Your task to perform on an android device: turn vacation reply on in the gmail app Image 0: 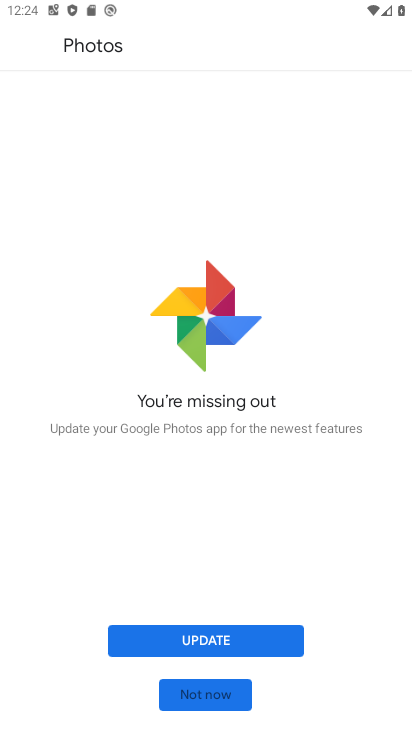
Step 0: press back button
Your task to perform on an android device: turn vacation reply on in the gmail app Image 1: 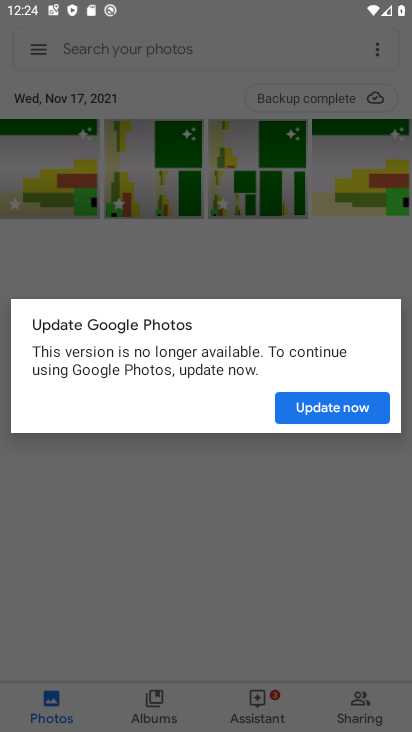
Step 1: press back button
Your task to perform on an android device: turn vacation reply on in the gmail app Image 2: 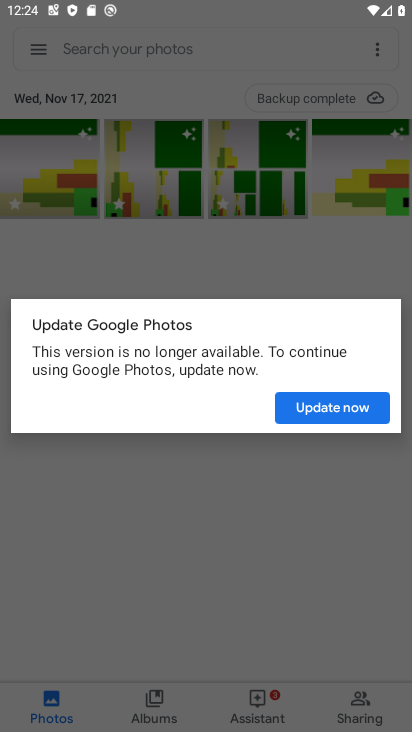
Step 2: press home button
Your task to perform on an android device: turn vacation reply on in the gmail app Image 3: 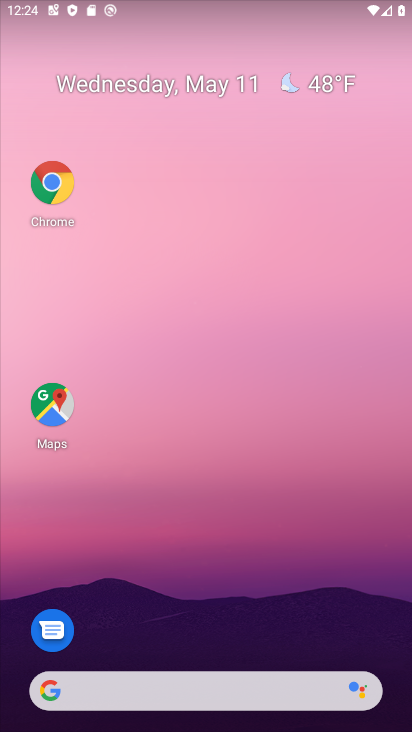
Step 3: drag from (217, 658) to (190, 0)
Your task to perform on an android device: turn vacation reply on in the gmail app Image 4: 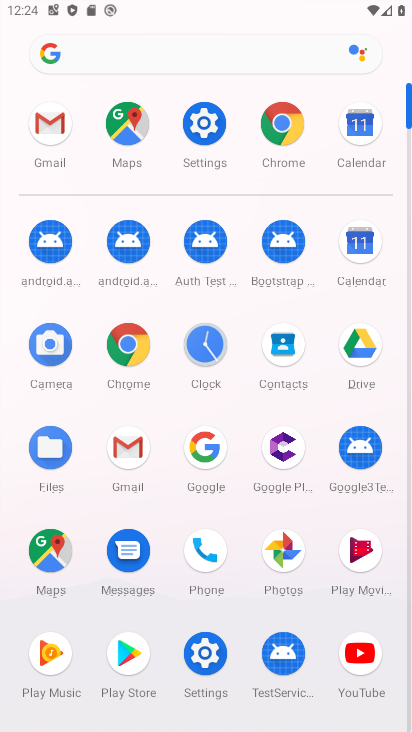
Step 4: click (130, 451)
Your task to perform on an android device: turn vacation reply on in the gmail app Image 5: 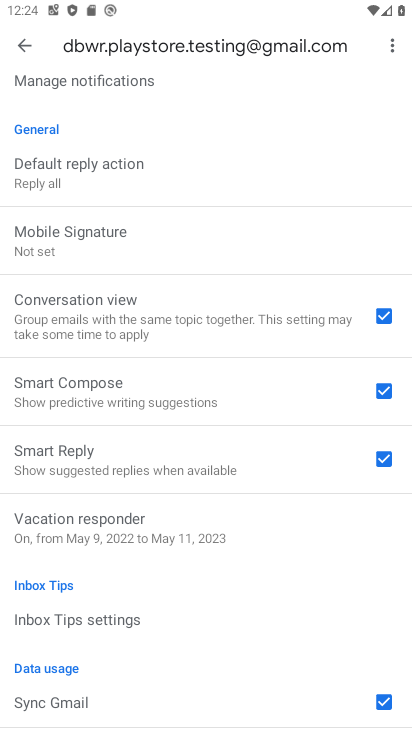
Step 5: click (160, 528)
Your task to perform on an android device: turn vacation reply on in the gmail app Image 6: 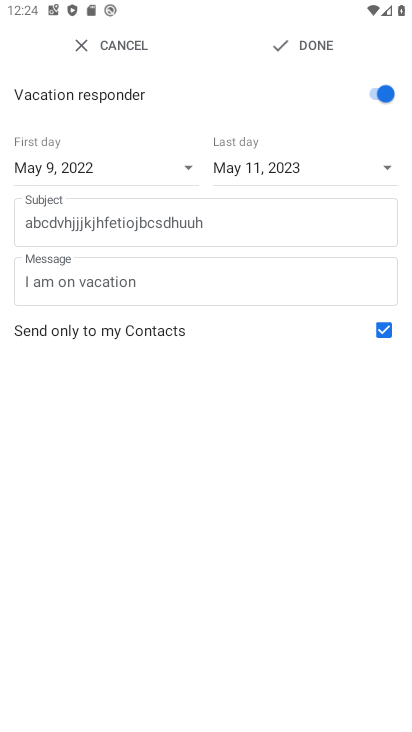
Step 6: click (294, 49)
Your task to perform on an android device: turn vacation reply on in the gmail app Image 7: 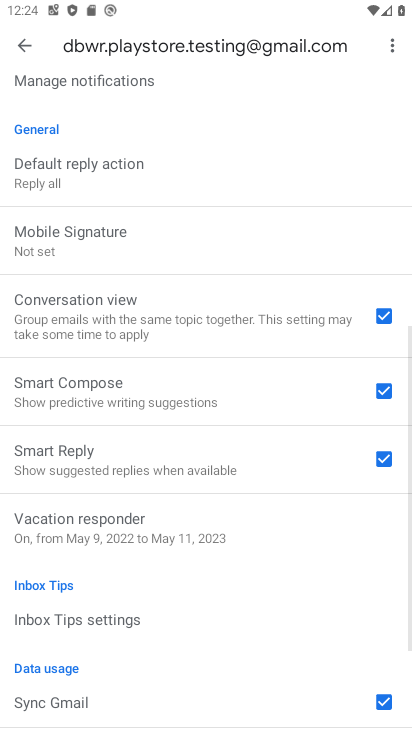
Step 7: task complete